Your task to perform on an android device: change notifications settings Image 0: 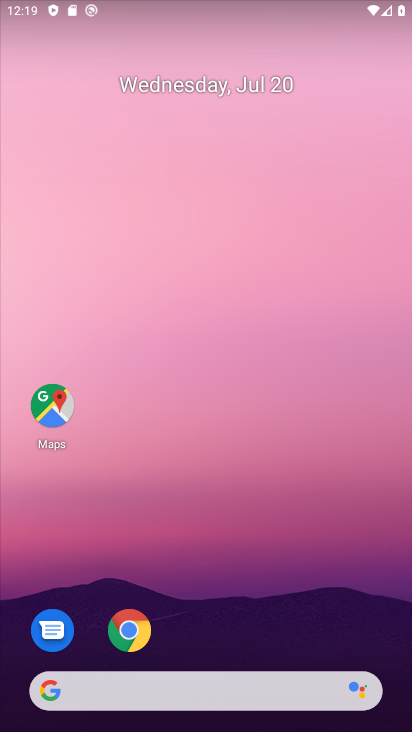
Step 0: drag from (138, 293) to (236, 1)
Your task to perform on an android device: change notifications settings Image 1: 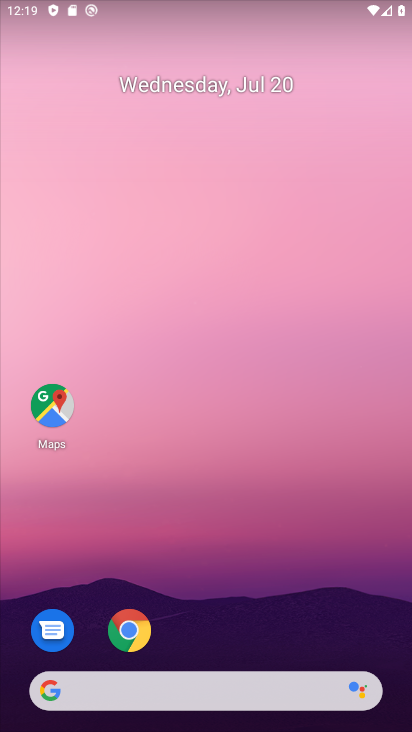
Step 1: press home button
Your task to perform on an android device: change notifications settings Image 2: 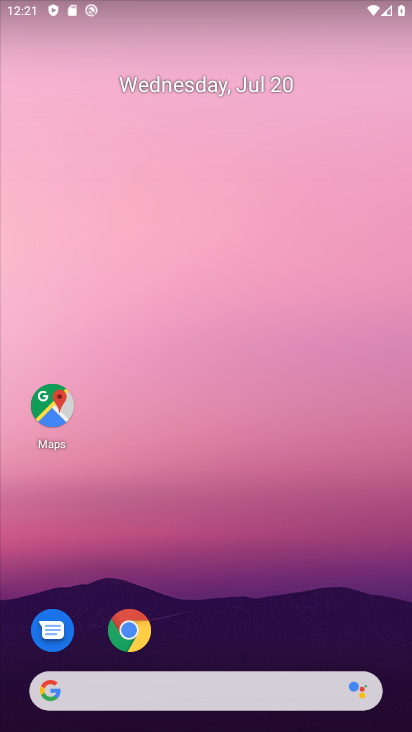
Step 2: drag from (68, 388) to (216, 36)
Your task to perform on an android device: change notifications settings Image 3: 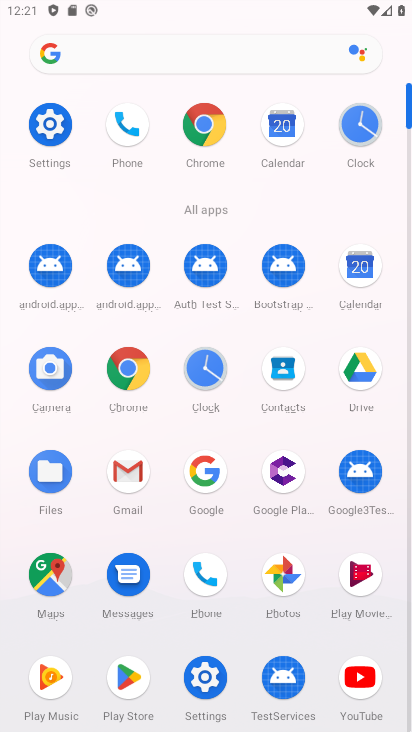
Step 3: click (47, 122)
Your task to perform on an android device: change notifications settings Image 4: 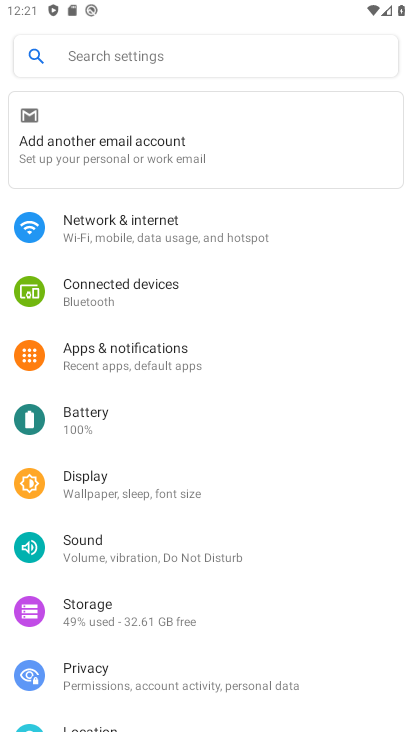
Step 4: click (178, 364)
Your task to perform on an android device: change notifications settings Image 5: 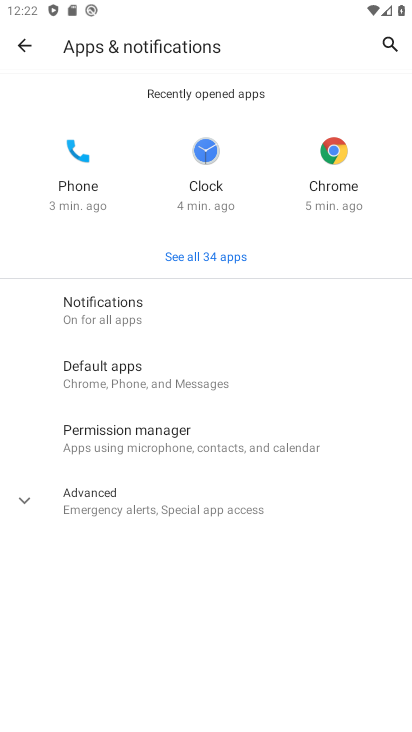
Step 5: click (177, 307)
Your task to perform on an android device: change notifications settings Image 6: 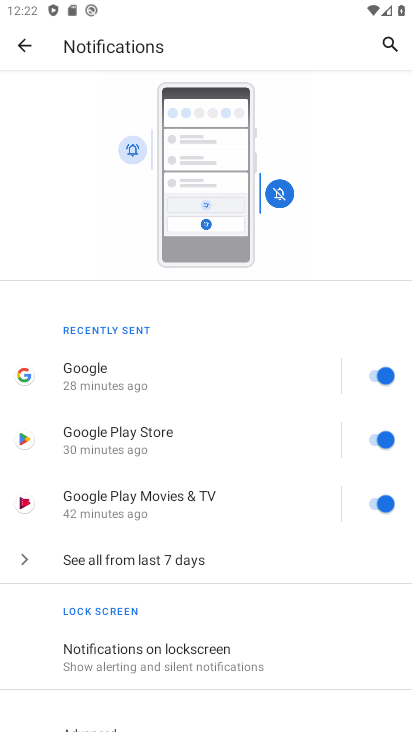
Step 6: click (396, 370)
Your task to perform on an android device: change notifications settings Image 7: 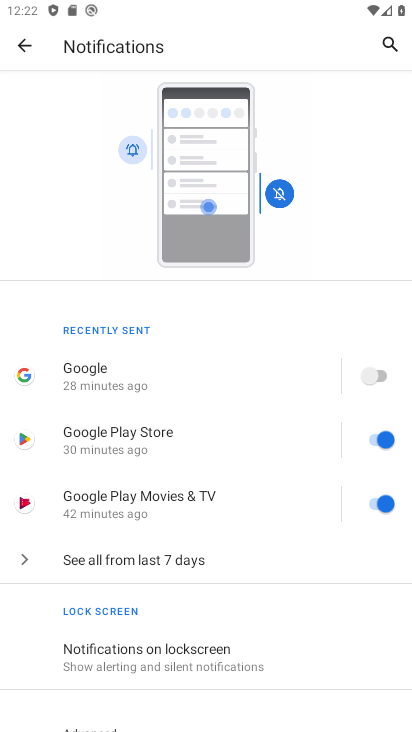
Step 7: task complete